Your task to perform on an android device: turn on showing notifications on the lock screen Image 0: 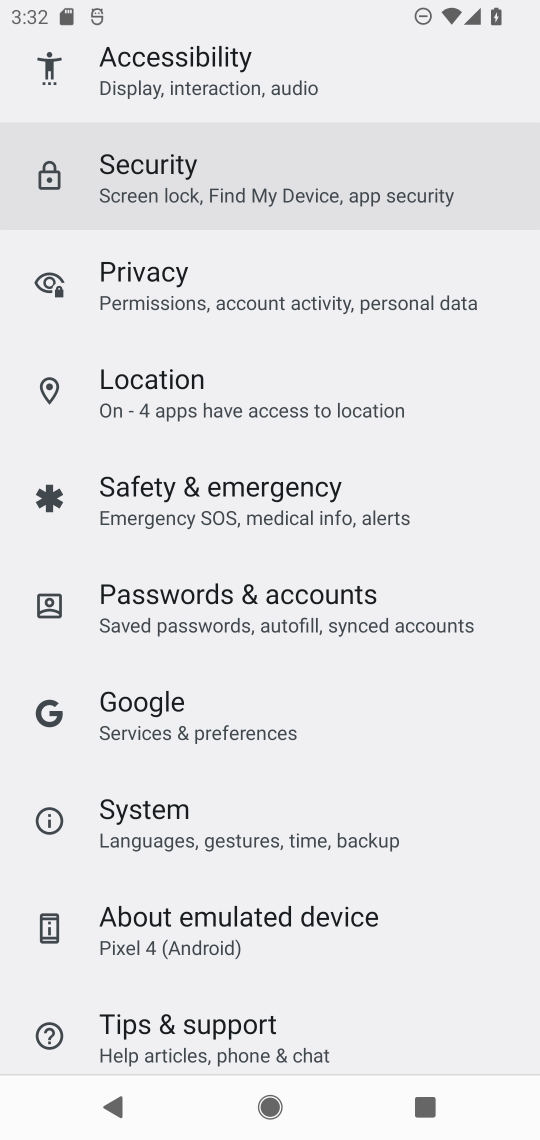
Step 0: drag from (333, 780) to (342, 398)
Your task to perform on an android device: turn on showing notifications on the lock screen Image 1: 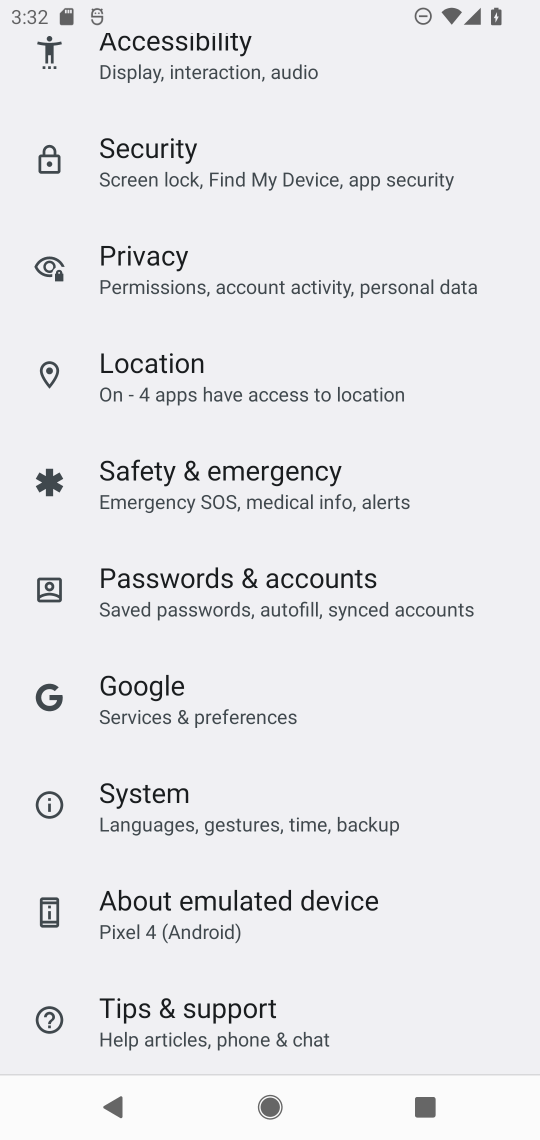
Step 1: task complete